Your task to perform on an android device: Open calendar and show me the third week of next month Image 0: 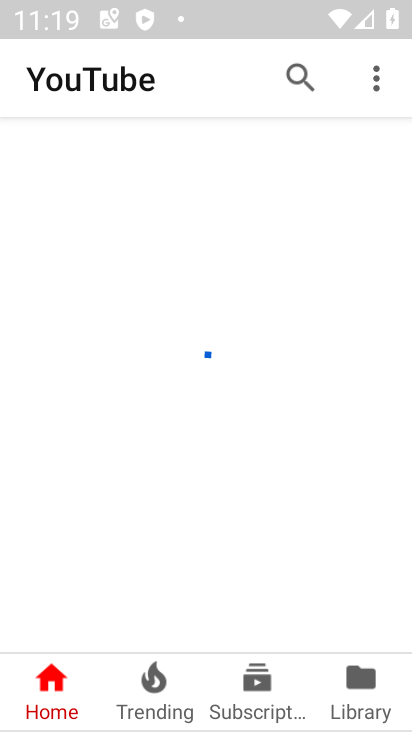
Step 0: drag from (322, 498) to (407, 348)
Your task to perform on an android device: Open calendar and show me the third week of next month Image 1: 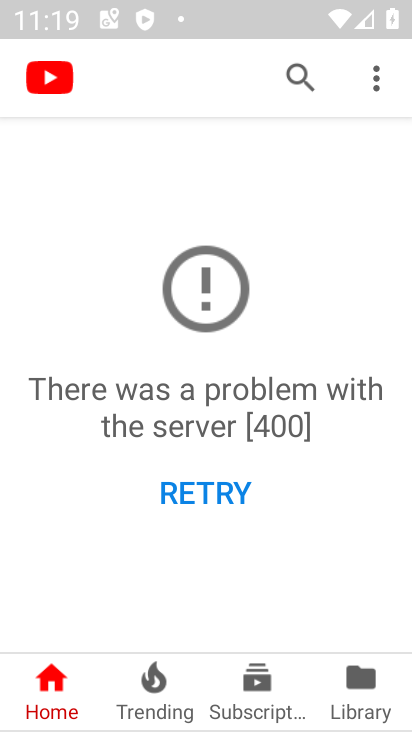
Step 1: press home button
Your task to perform on an android device: Open calendar and show me the third week of next month Image 2: 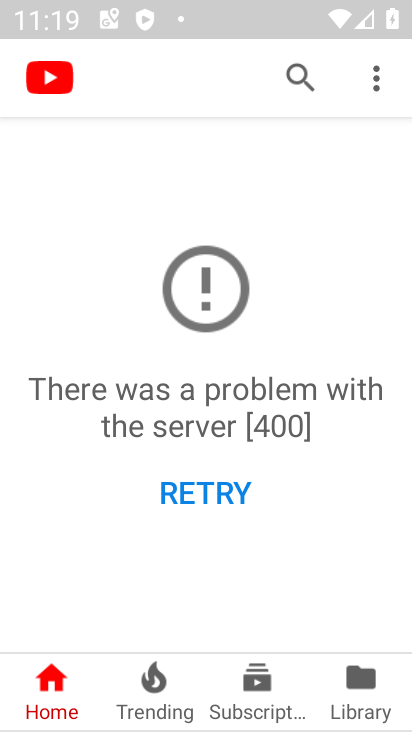
Step 2: drag from (407, 348) to (405, 421)
Your task to perform on an android device: Open calendar and show me the third week of next month Image 3: 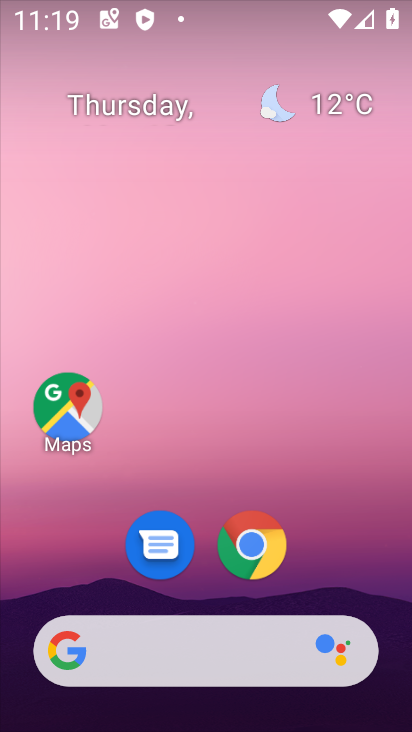
Step 3: drag from (352, 532) to (362, 144)
Your task to perform on an android device: Open calendar and show me the third week of next month Image 4: 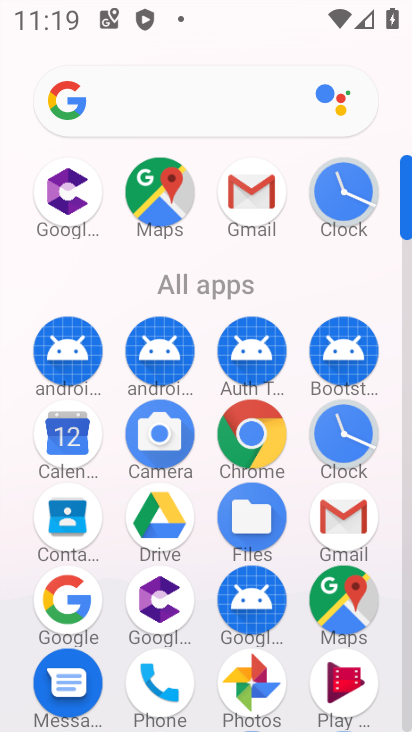
Step 4: click (67, 444)
Your task to perform on an android device: Open calendar and show me the third week of next month Image 5: 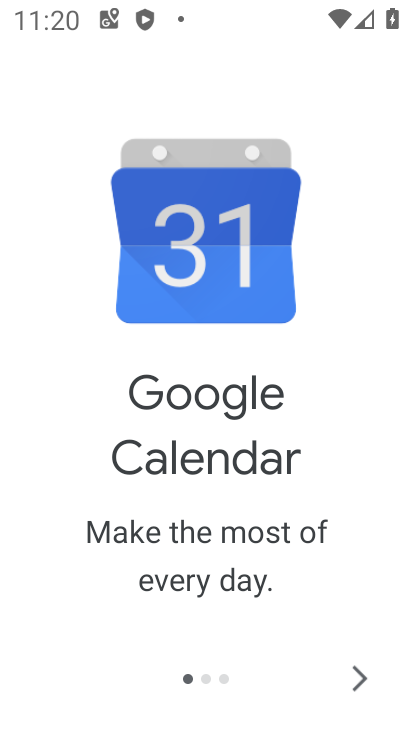
Step 5: click (342, 680)
Your task to perform on an android device: Open calendar and show me the third week of next month Image 6: 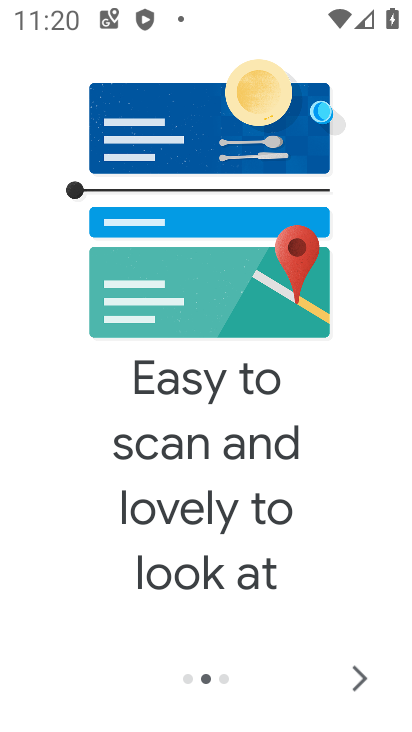
Step 6: click (348, 684)
Your task to perform on an android device: Open calendar and show me the third week of next month Image 7: 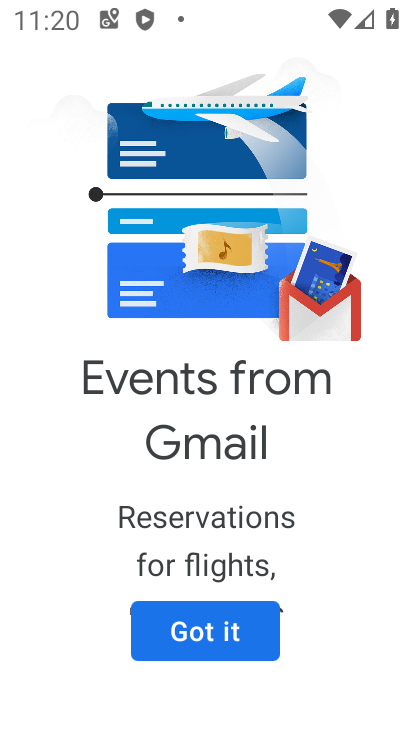
Step 7: click (347, 684)
Your task to perform on an android device: Open calendar and show me the third week of next month Image 8: 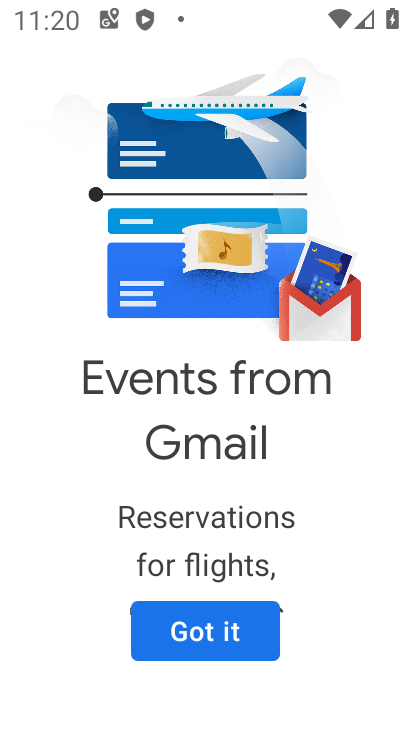
Step 8: click (263, 655)
Your task to perform on an android device: Open calendar and show me the third week of next month Image 9: 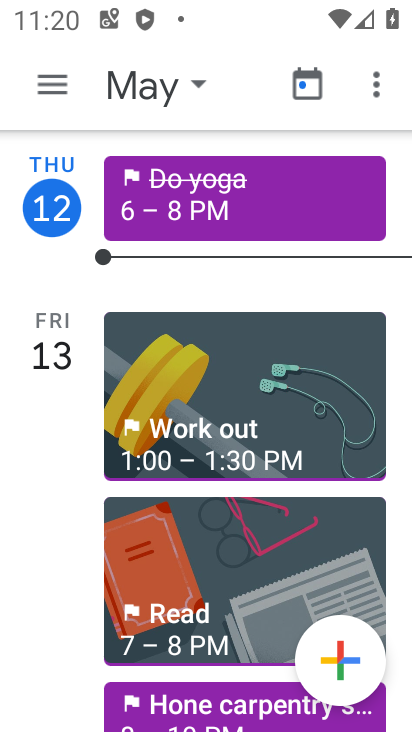
Step 9: click (152, 74)
Your task to perform on an android device: Open calendar and show me the third week of next month Image 10: 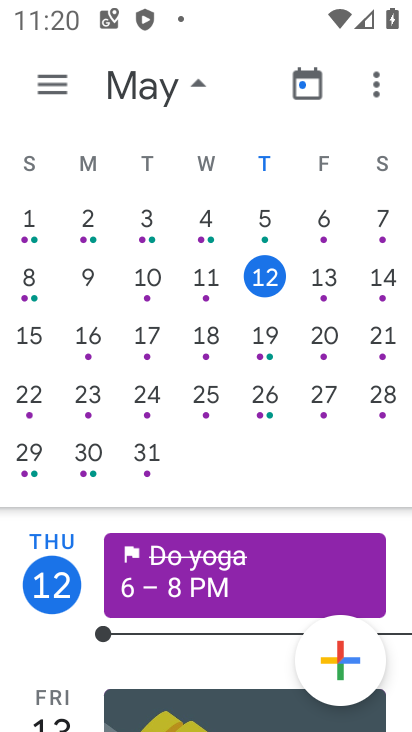
Step 10: drag from (327, 330) to (18, 359)
Your task to perform on an android device: Open calendar and show me the third week of next month Image 11: 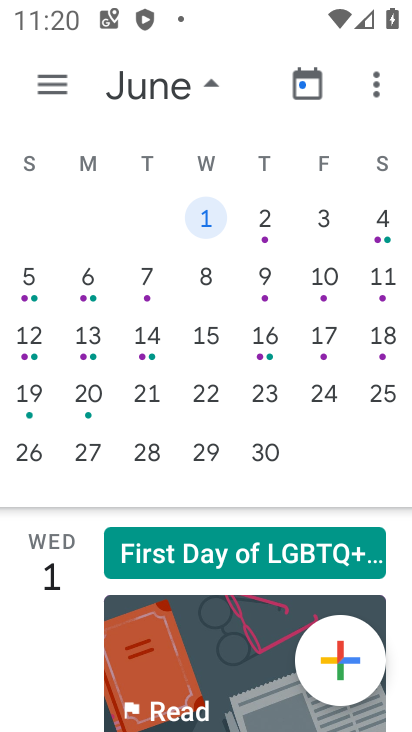
Step 11: click (36, 354)
Your task to perform on an android device: Open calendar and show me the third week of next month Image 12: 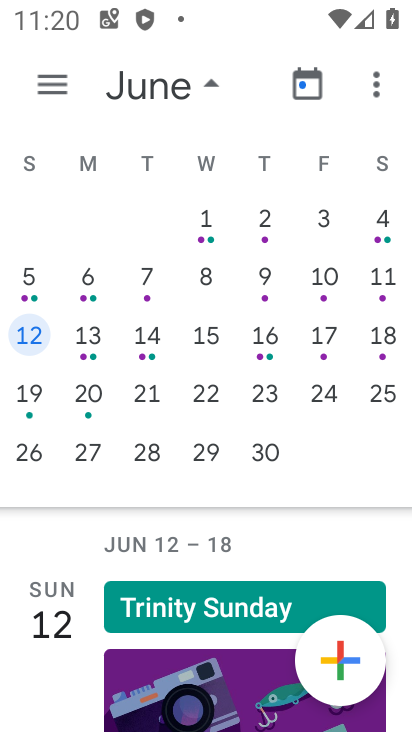
Step 12: click (93, 354)
Your task to perform on an android device: Open calendar and show me the third week of next month Image 13: 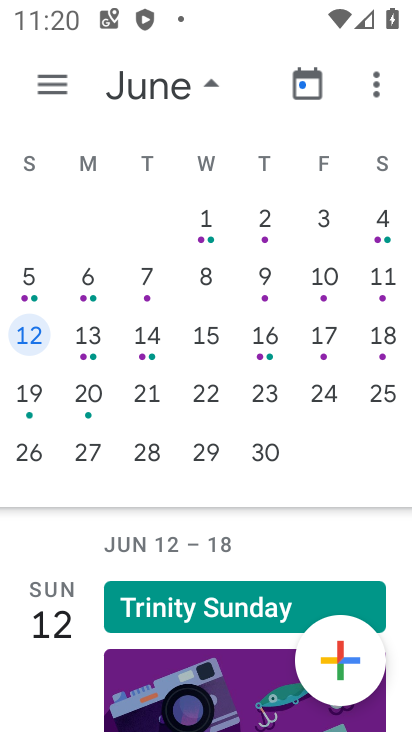
Step 13: click (152, 354)
Your task to perform on an android device: Open calendar and show me the third week of next month Image 14: 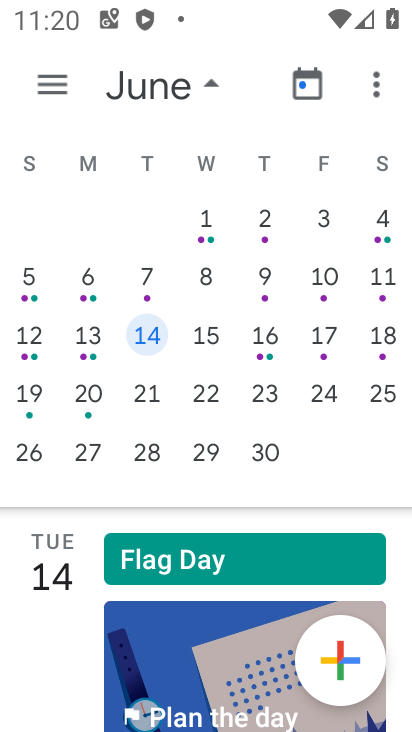
Step 14: click (208, 353)
Your task to perform on an android device: Open calendar and show me the third week of next month Image 15: 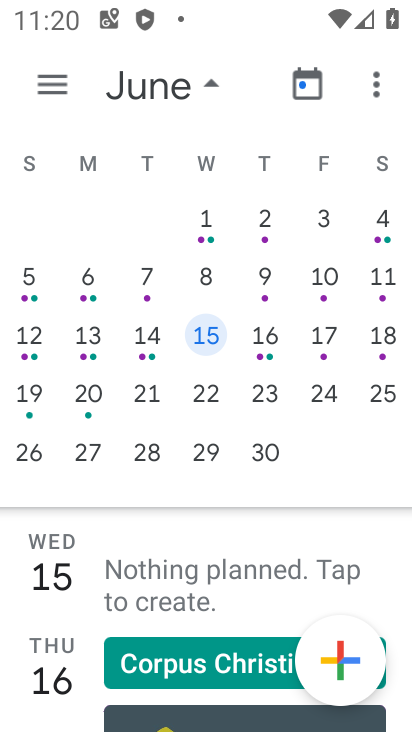
Step 15: click (269, 352)
Your task to perform on an android device: Open calendar and show me the third week of next month Image 16: 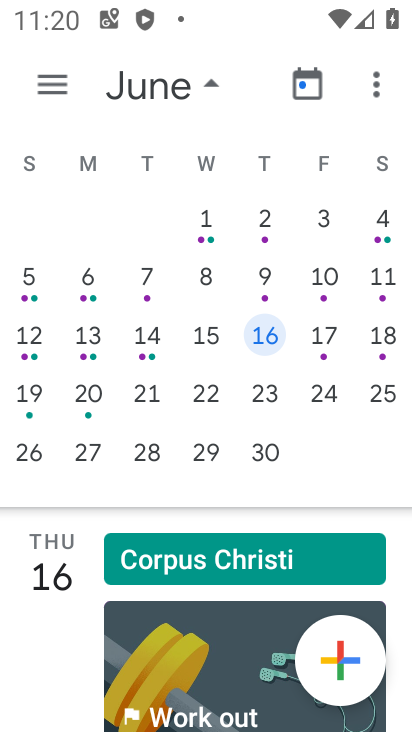
Step 16: click (326, 352)
Your task to perform on an android device: Open calendar and show me the third week of next month Image 17: 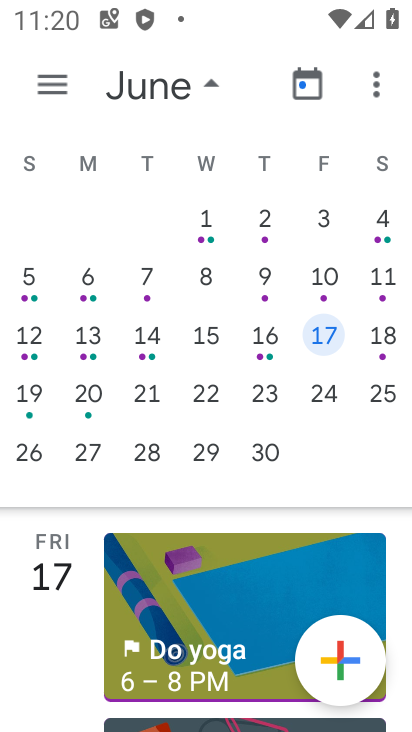
Step 17: click (375, 350)
Your task to perform on an android device: Open calendar and show me the third week of next month Image 18: 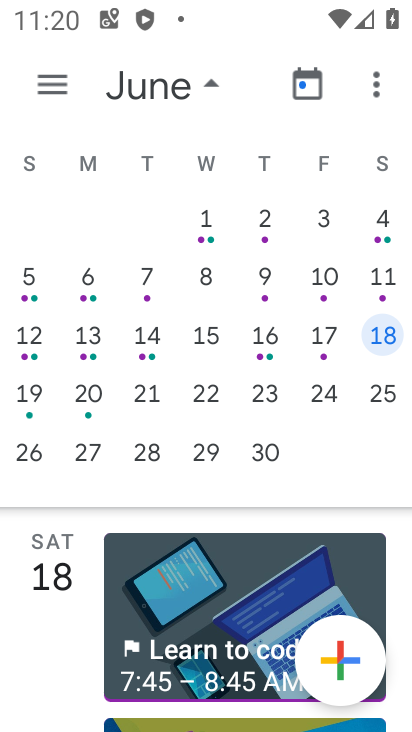
Step 18: task complete